Your task to perform on an android device: empty trash in google photos Image 0: 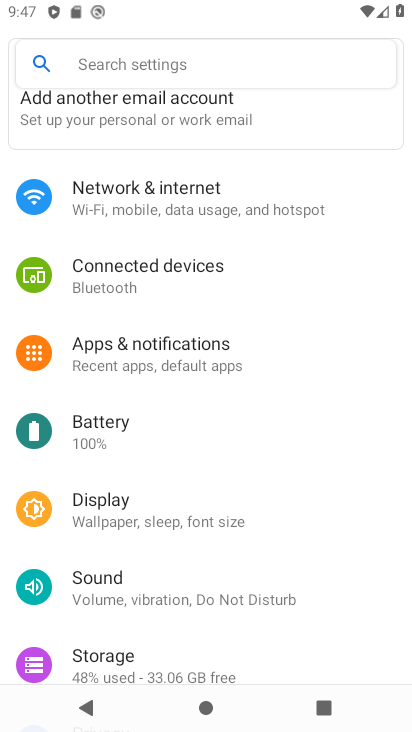
Step 0: press home button
Your task to perform on an android device: empty trash in google photos Image 1: 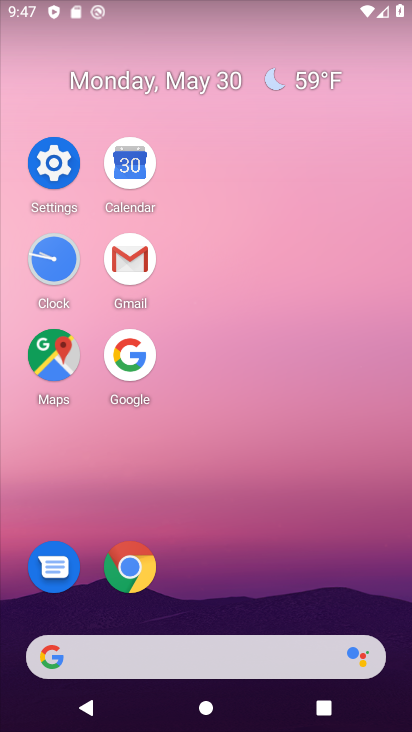
Step 1: drag from (281, 598) to (284, 186)
Your task to perform on an android device: empty trash in google photos Image 2: 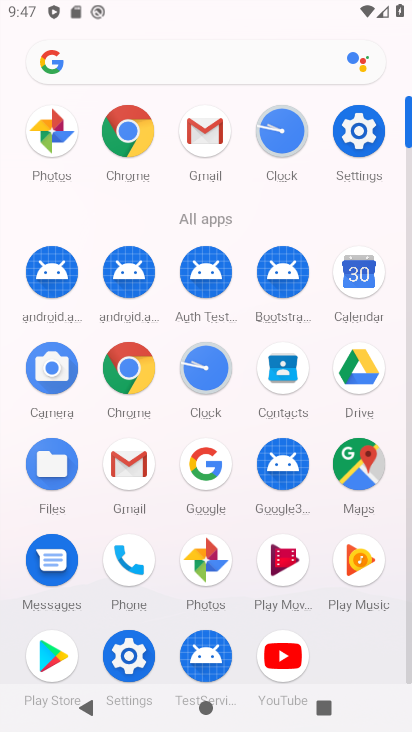
Step 2: drag from (211, 560) to (202, 333)
Your task to perform on an android device: empty trash in google photos Image 3: 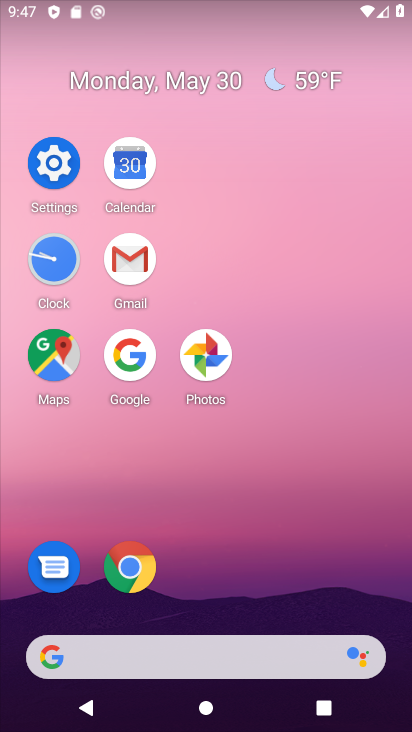
Step 3: click (203, 354)
Your task to perform on an android device: empty trash in google photos Image 4: 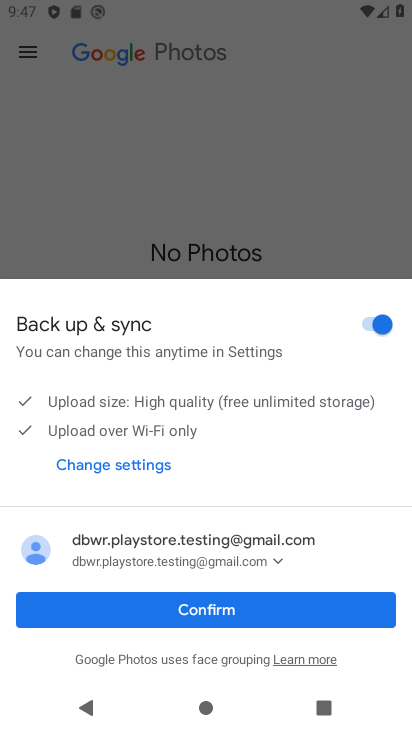
Step 4: click (263, 604)
Your task to perform on an android device: empty trash in google photos Image 5: 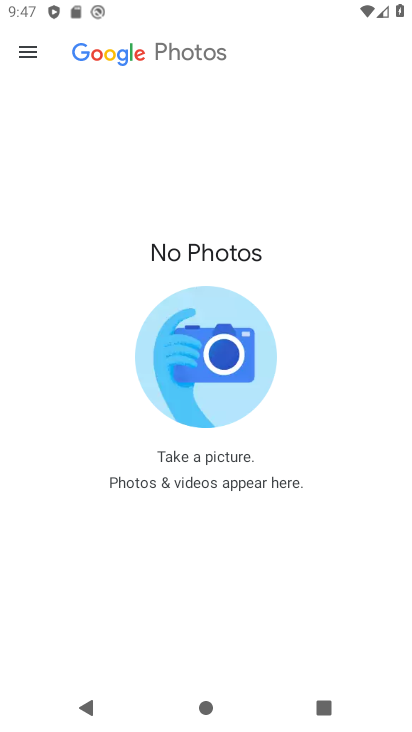
Step 5: click (38, 47)
Your task to perform on an android device: empty trash in google photos Image 6: 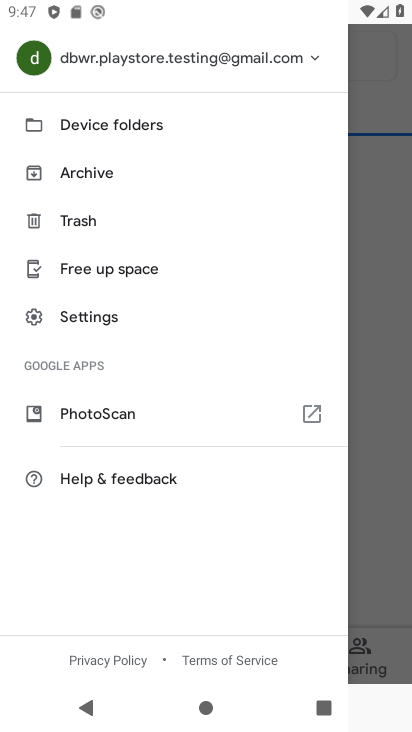
Step 6: click (94, 218)
Your task to perform on an android device: empty trash in google photos Image 7: 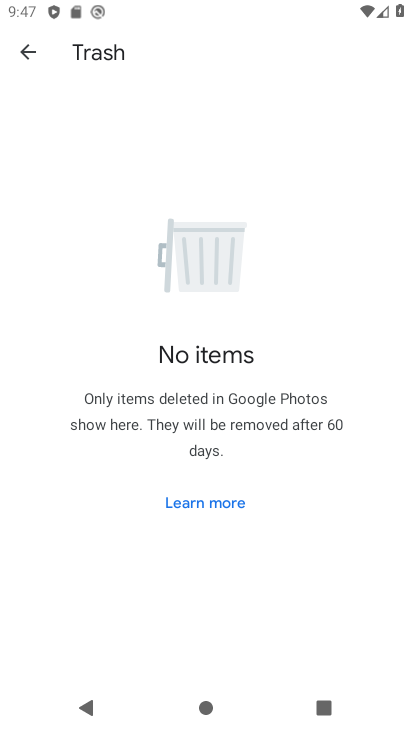
Step 7: task complete